Your task to perform on an android device: Clear the cart on bestbuy. Image 0: 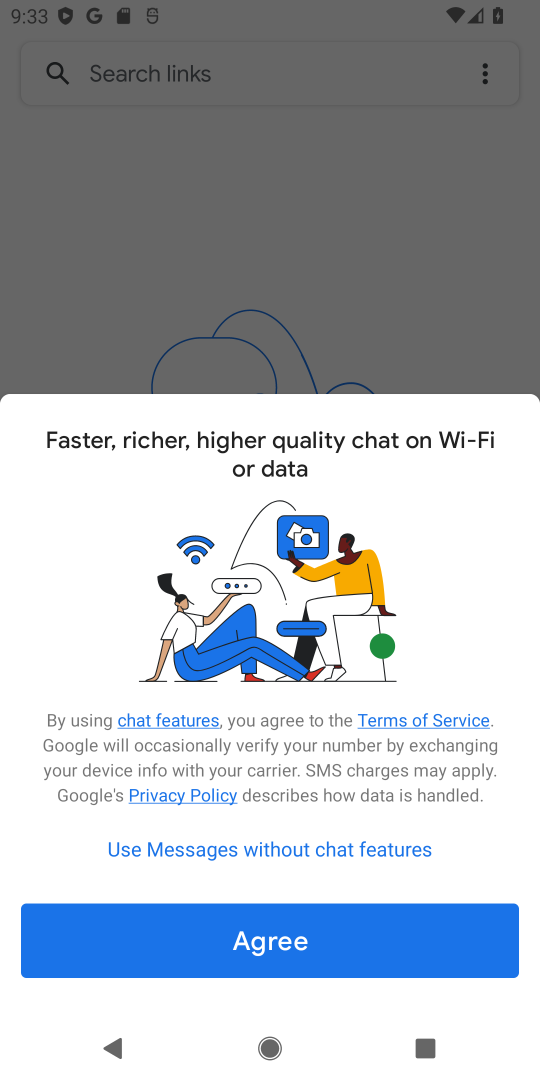
Step 0: press home button
Your task to perform on an android device: Clear the cart on bestbuy. Image 1: 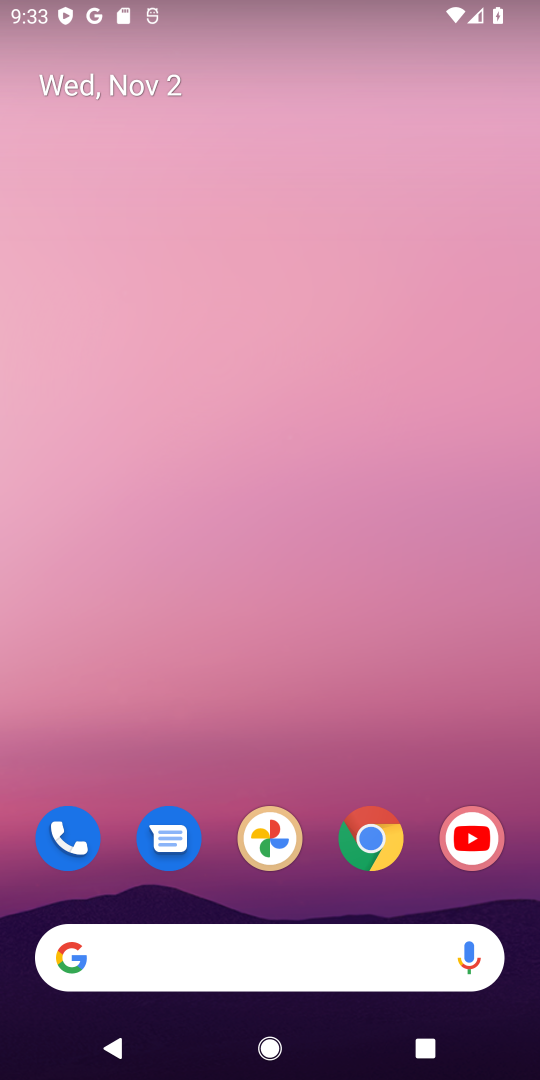
Step 1: click (362, 871)
Your task to perform on an android device: Clear the cart on bestbuy. Image 2: 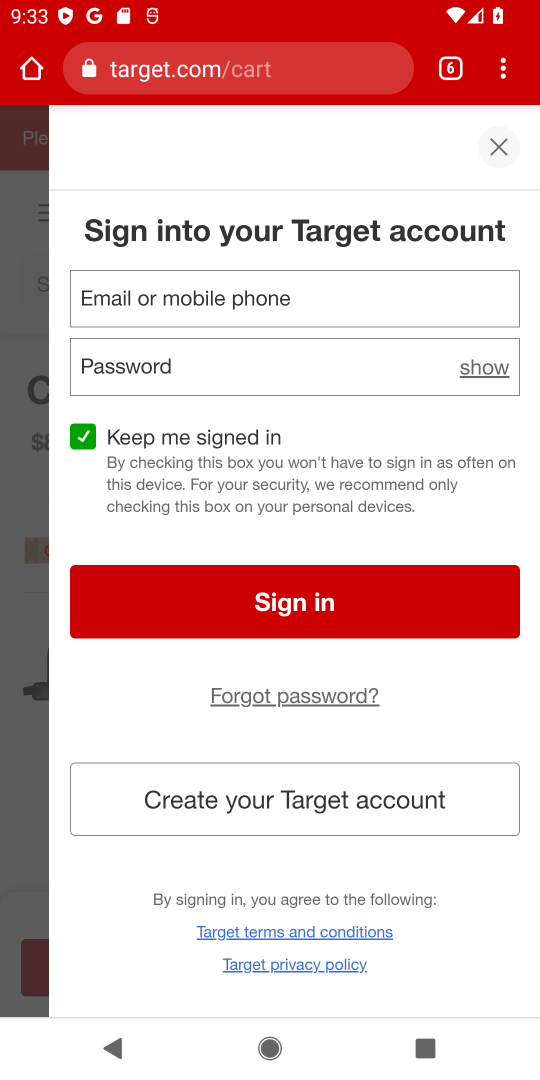
Step 2: click (445, 74)
Your task to perform on an android device: Clear the cart on bestbuy. Image 3: 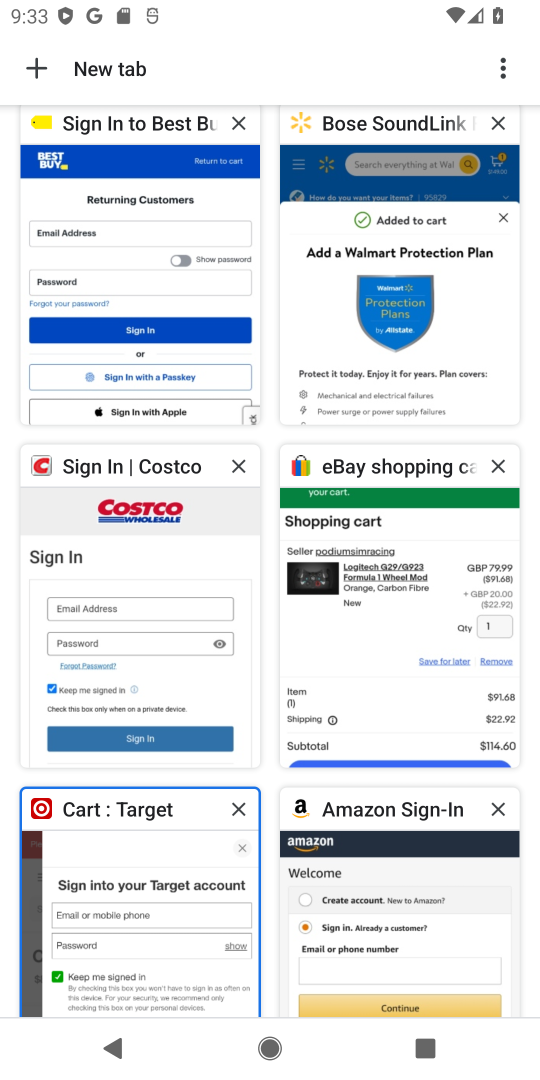
Step 3: click (226, 266)
Your task to perform on an android device: Clear the cart on bestbuy. Image 4: 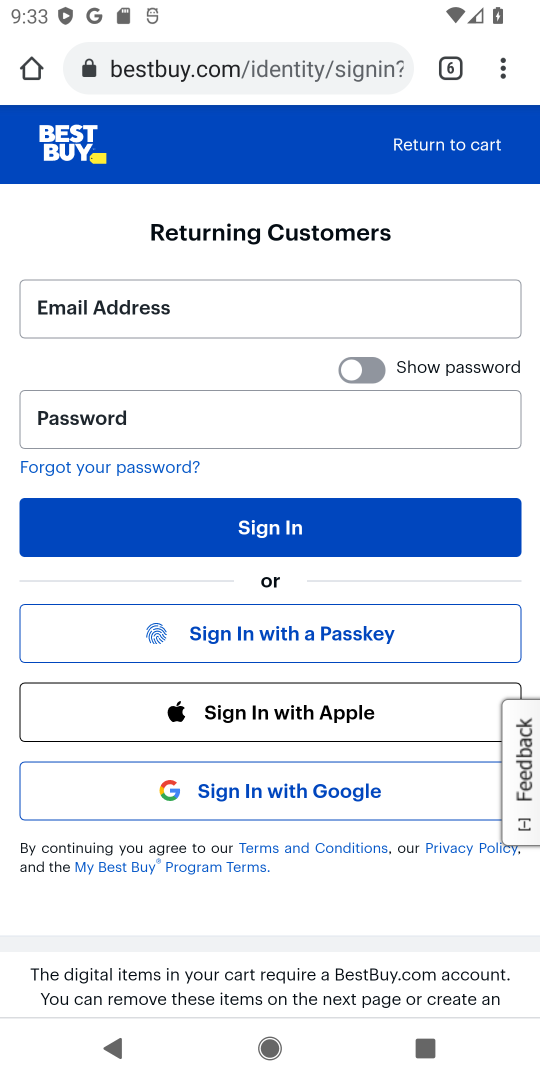
Step 4: click (463, 152)
Your task to perform on an android device: Clear the cart on bestbuy. Image 5: 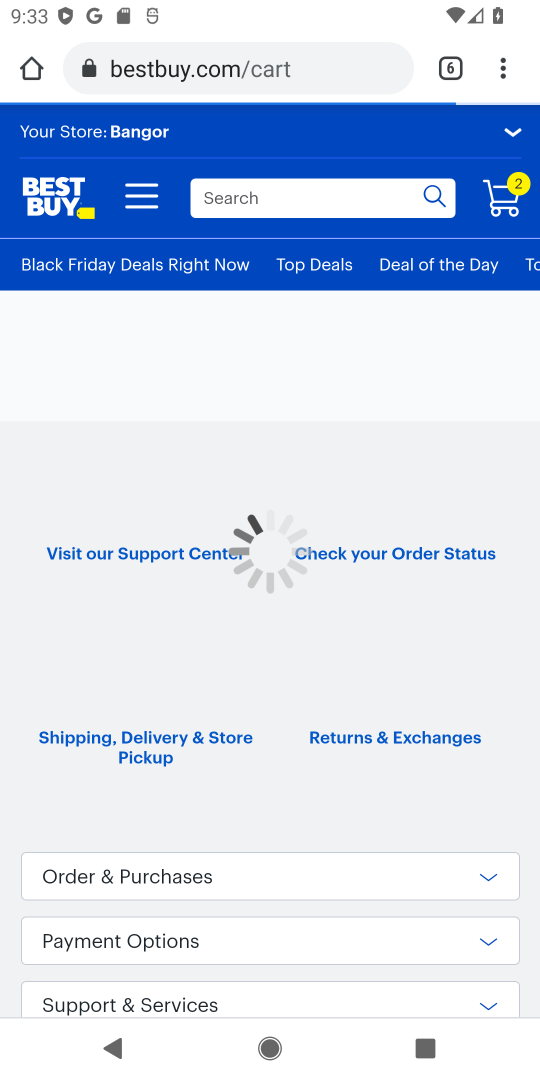
Step 5: click (510, 201)
Your task to perform on an android device: Clear the cart on bestbuy. Image 6: 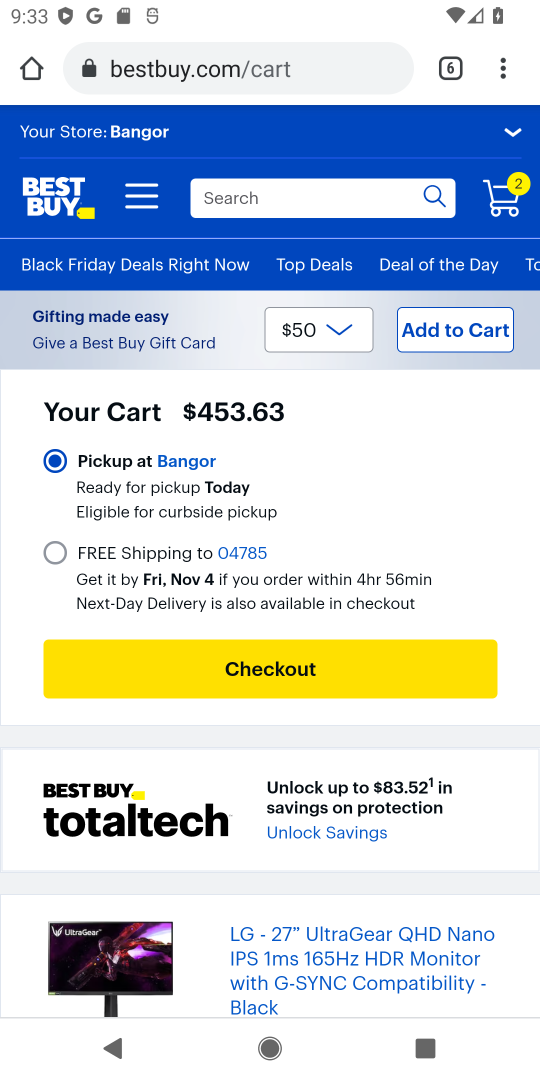
Step 6: drag from (456, 831) to (421, 420)
Your task to perform on an android device: Clear the cart on bestbuy. Image 7: 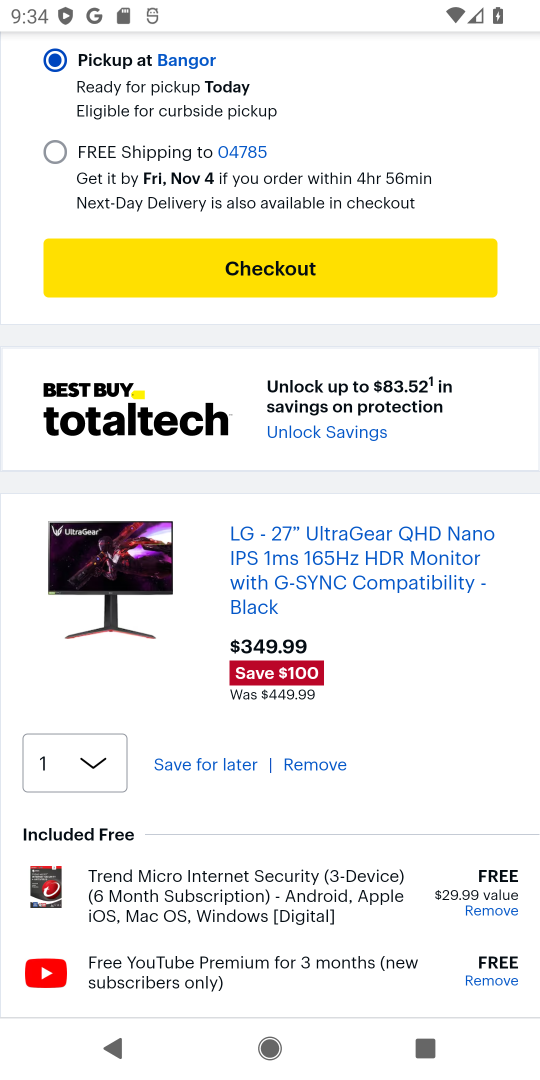
Step 7: click (314, 763)
Your task to perform on an android device: Clear the cart on bestbuy. Image 8: 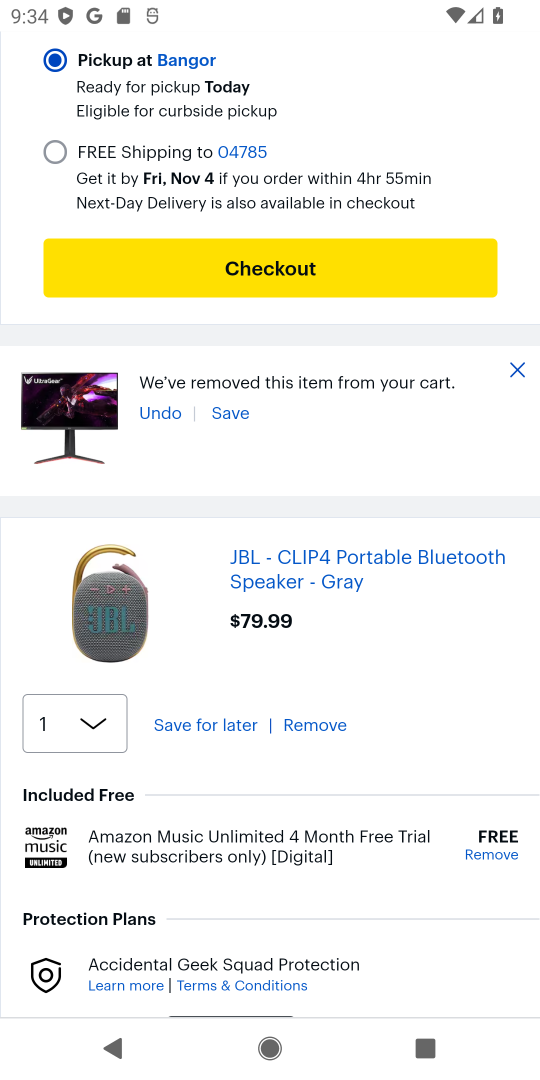
Step 8: click (314, 720)
Your task to perform on an android device: Clear the cart on bestbuy. Image 9: 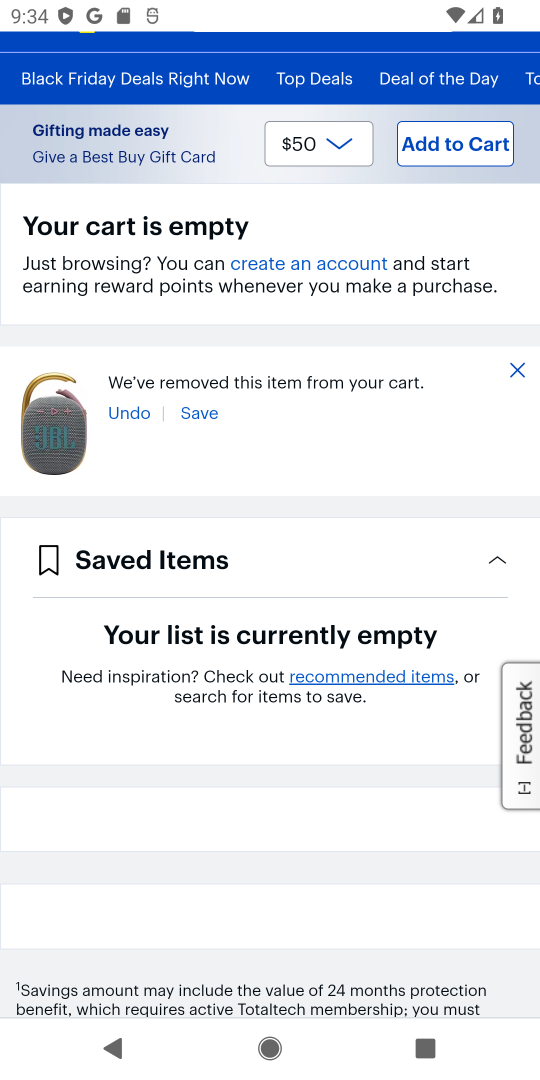
Step 9: task complete